Your task to perform on an android device: Show me recent news Image 0: 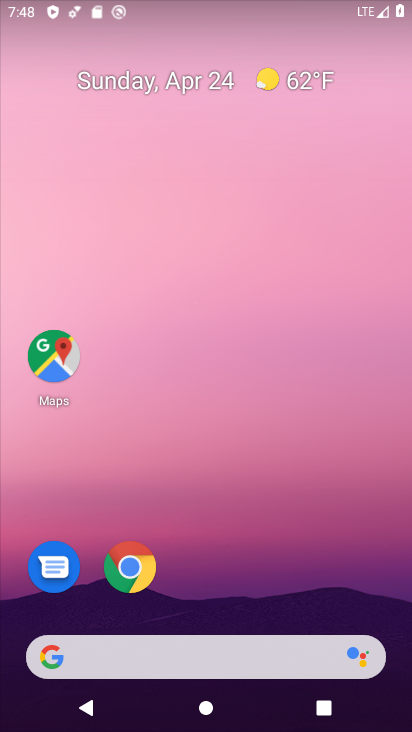
Step 0: drag from (212, 551) to (190, 85)
Your task to perform on an android device: Show me recent news Image 1: 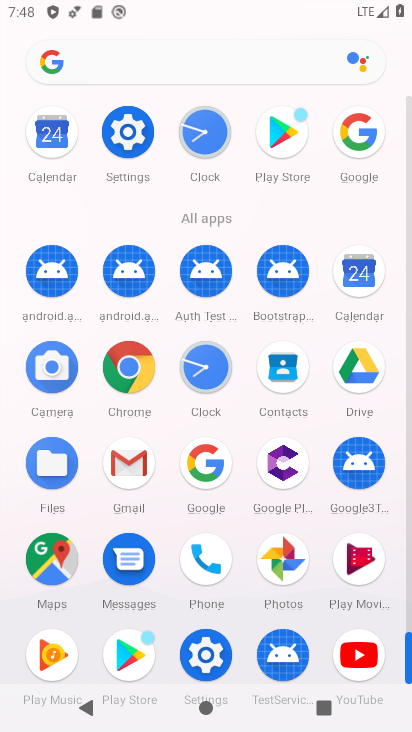
Step 1: click (356, 133)
Your task to perform on an android device: Show me recent news Image 2: 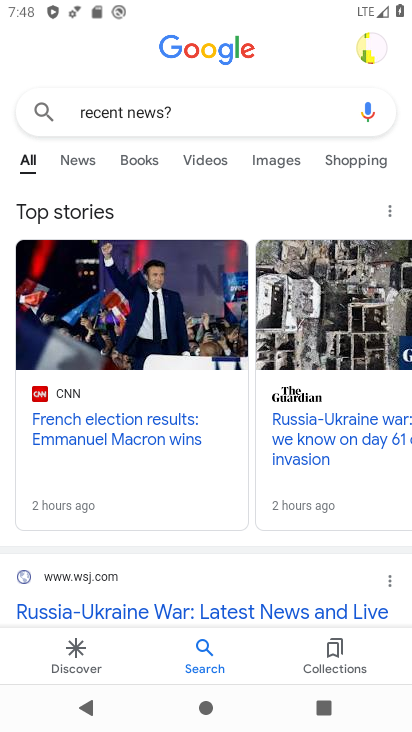
Step 2: click (196, 444)
Your task to perform on an android device: Show me recent news Image 3: 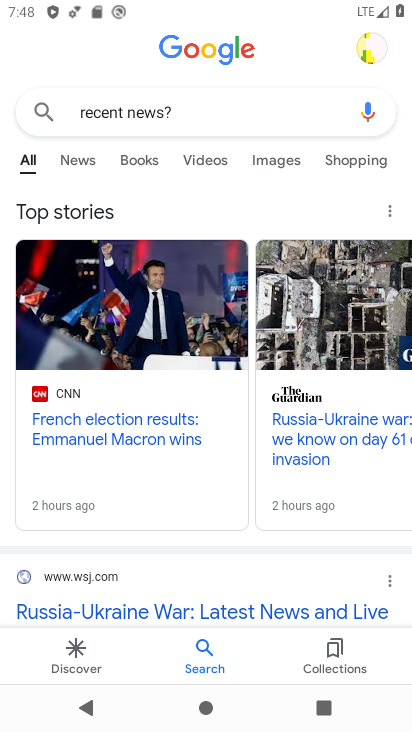
Step 3: task complete